Your task to perform on an android device: check android version Image 0: 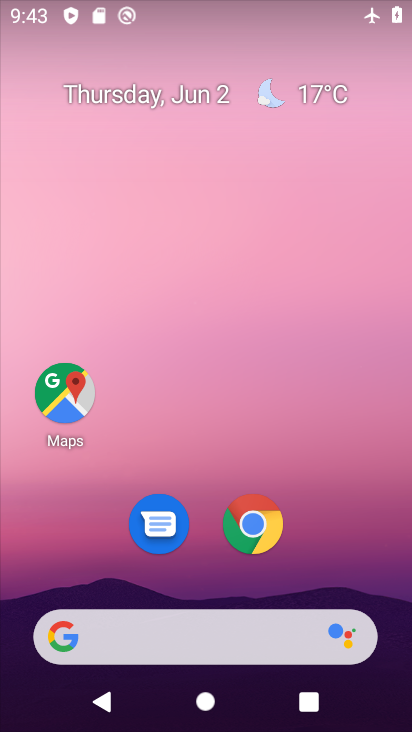
Step 0: drag from (247, 462) to (165, 0)
Your task to perform on an android device: check android version Image 1: 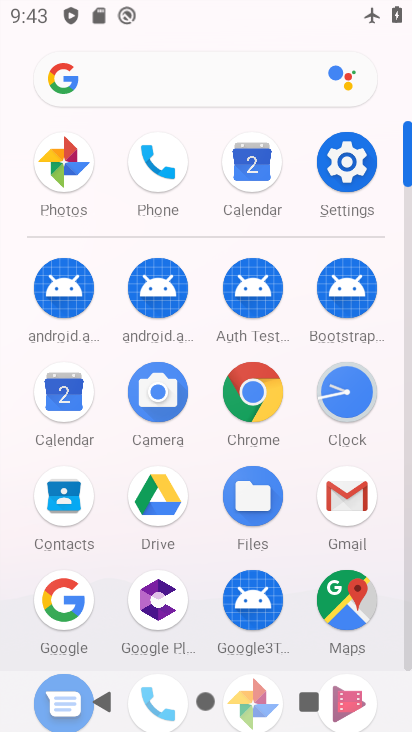
Step 1: click (329, 171)
Your task to perform on an android device: check android version Image 2: 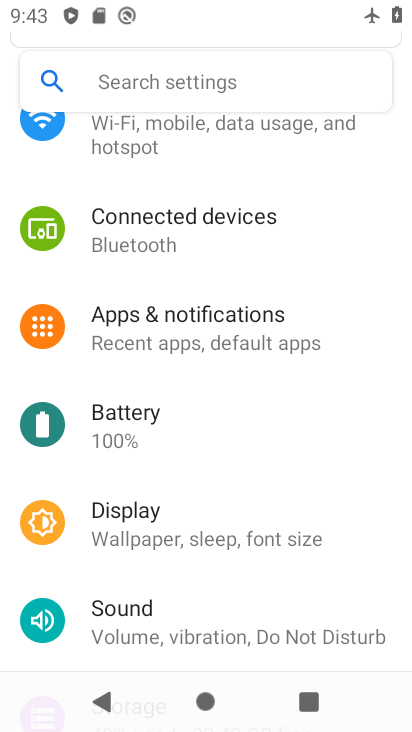
Step 2: drag from (249, 521) to (174, 118)
Your task to perform on an android device: check android version Image 3: 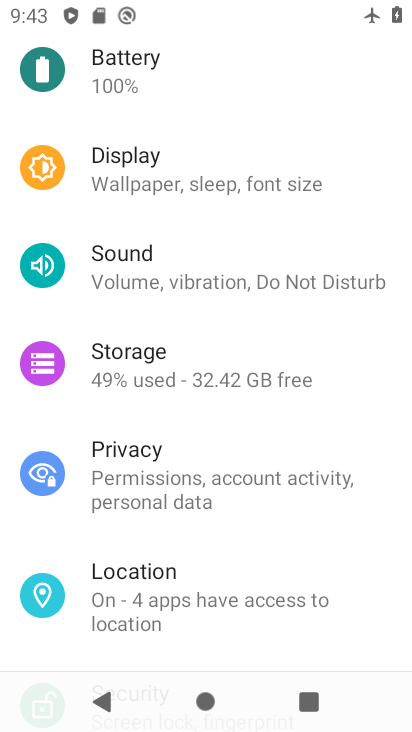
Step 3: drag from (220, 544) to (210, 4)
Your task to perform on an android device: check android version Image 4: 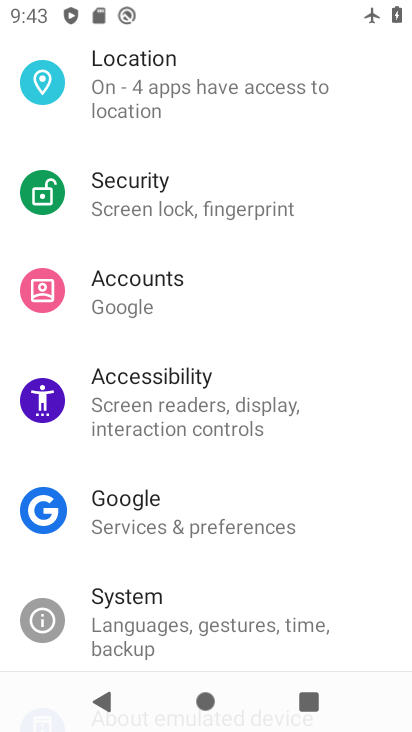
Step 4: drag from (265, 554) to (235, 123)
Your task to perform on an android device: check android version Image 5: 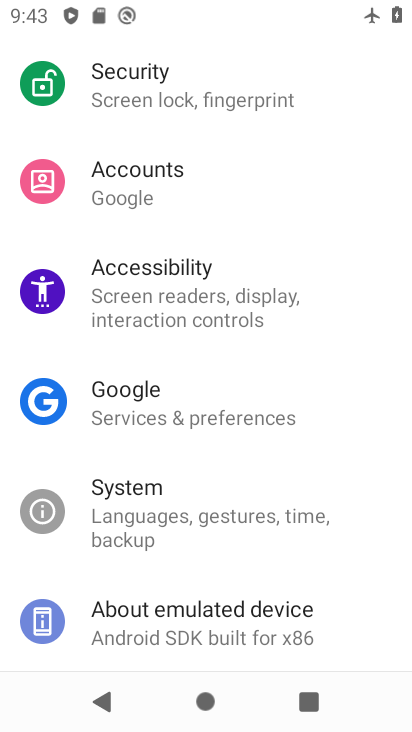
Step 5: click (260, 615)
Your task to perform on an android device: check android version Image 6: 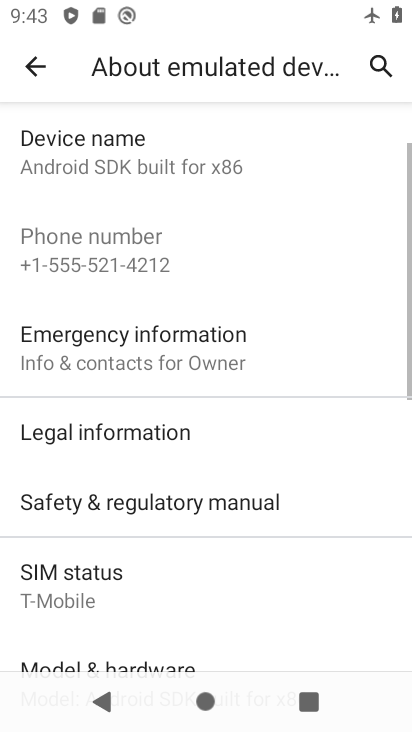
Step 6: drag from (260, 615) to (229, 134)
Your task to perform on an android device: check android version Image 7: 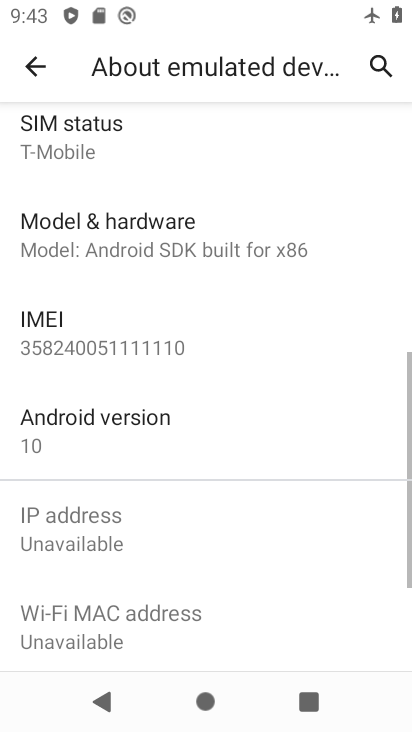
Step 7: click (175, 431)
Your task to perform on an android device: check android version Image 8: 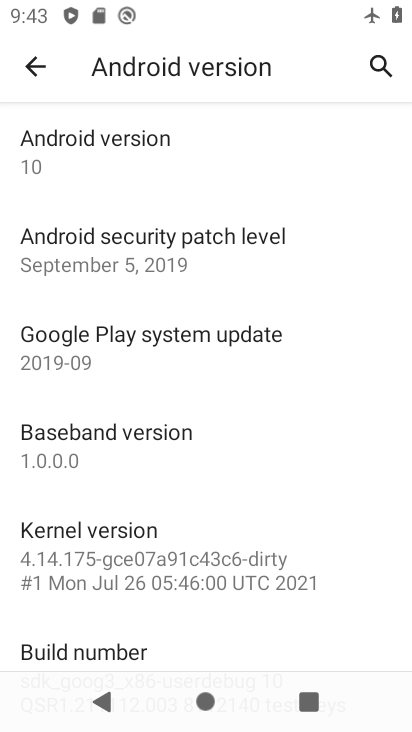
Step 8: task complete